Your task to perform on an android device: Search for seafood restaurants on Google Maps Image 0: 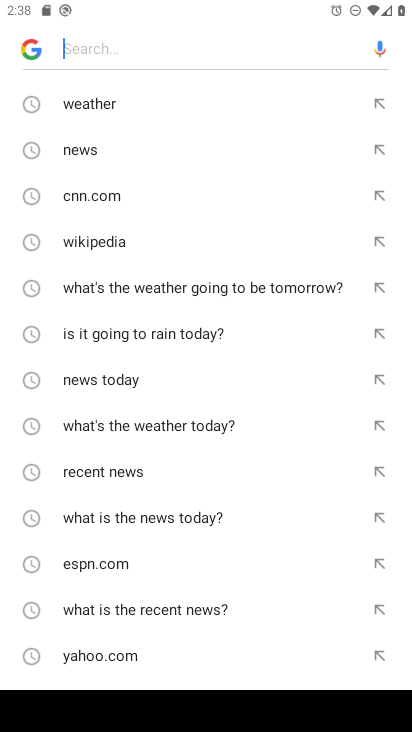
Step 0: press home button
Your task to perform on an android device: Search for seafood restaurants on Google Maps Image 1: 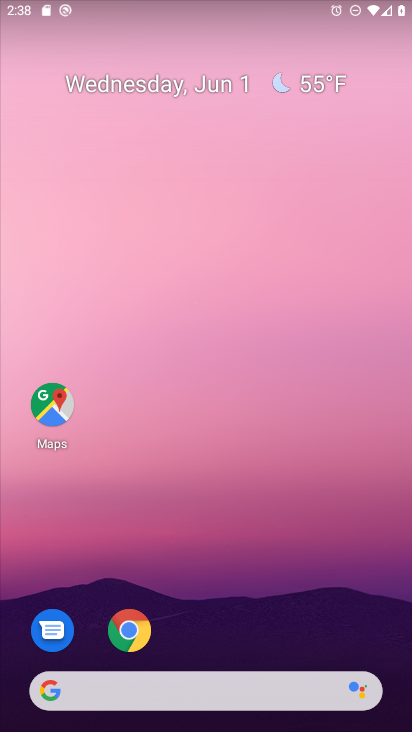
Step 1: drag from (306, 700) to (315, 4)
Your task to perform on an android device: Search for seafood restaurants on Google Maps Image 2: 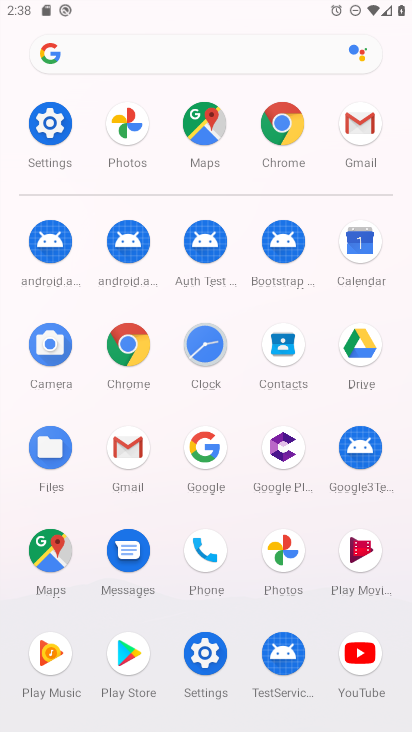
Step 2: click (54, 556)
Your task to perform on an android device: Search for seafood restaurants on Google Maps Image 3: 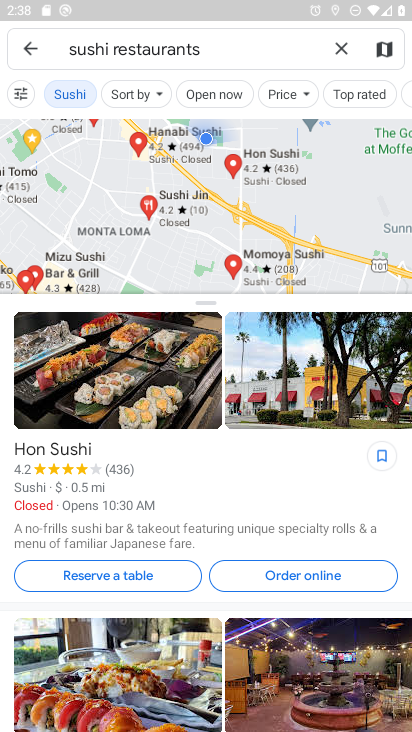
Step 3: press back button
Your task to perform on an android device: Search for seafood restaurants on Google Maps Image 4: 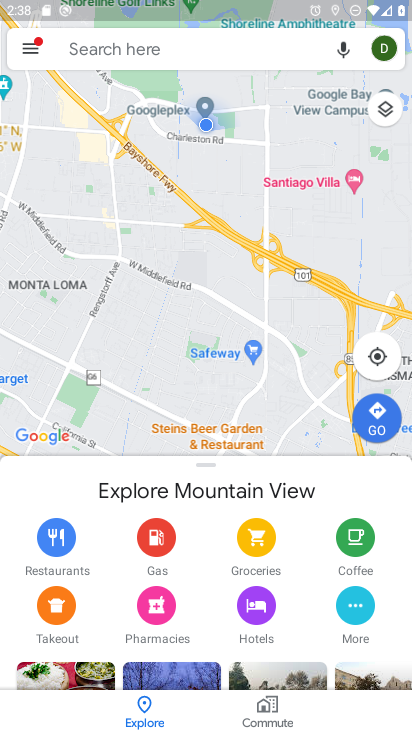
Step 4: click (174, 56)
Your task to perform on an android device: Search for seafood restaurants on Google Maps Image 5: 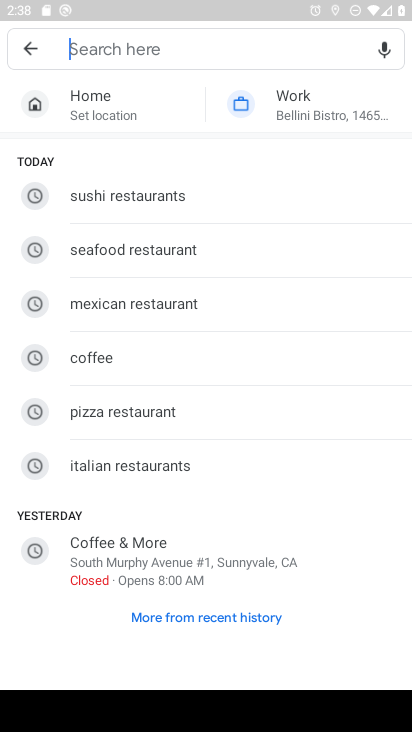
Step 5: click (145, 253)
Your task to perform on an android device: Search for seafood restaurants on Google Maps Image 6: 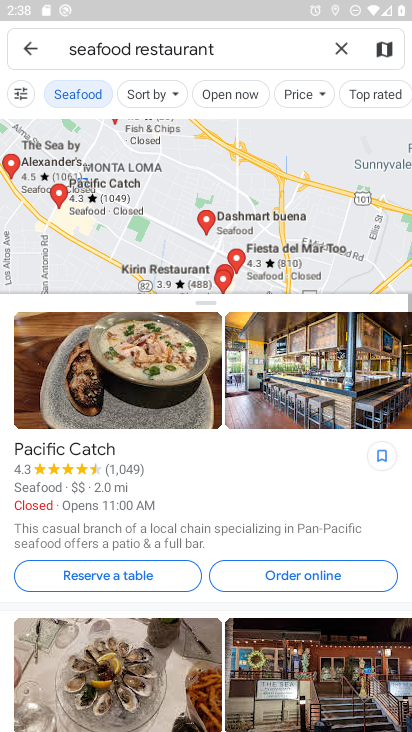
Step 6: task complete